Your task to perform on an android device: change the clock display to show seconds Image 0: 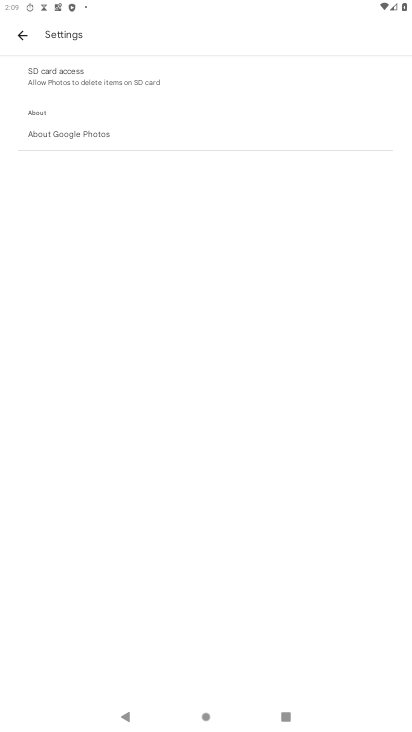
Step 0: press home button
Your task to perform on an android device: change the clock display to show seconds Image 1: 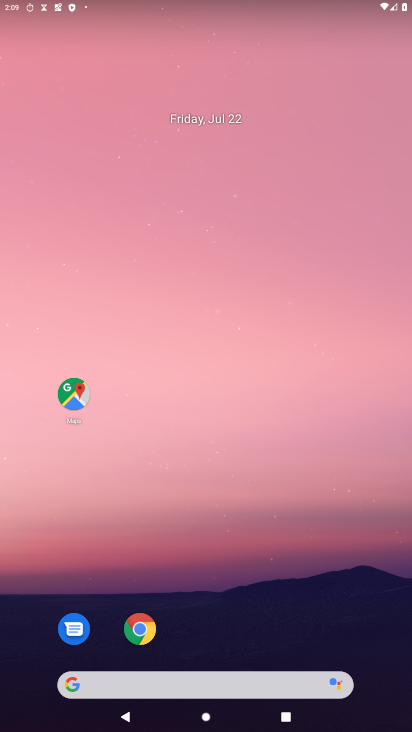
Step 1: press home button
Your task to perform on an android device: change the clock display to show seconds Image 2: 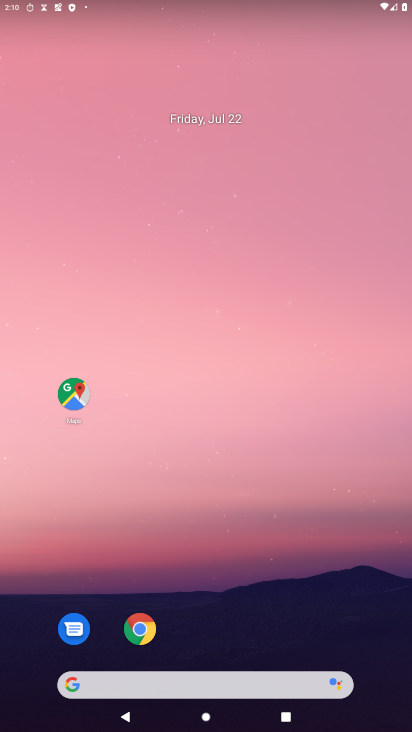
Step 2: drag from (264, 645) to (275, 0)
Your task to perform on an android device: change the clock display to show seconds Image 3: 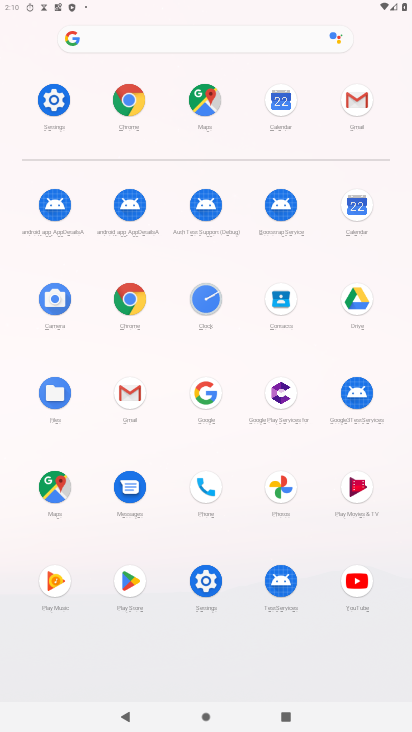
Step 3: click (202, 294)
Your task to perform on an android device: change the clock display to show seconds Image 4: 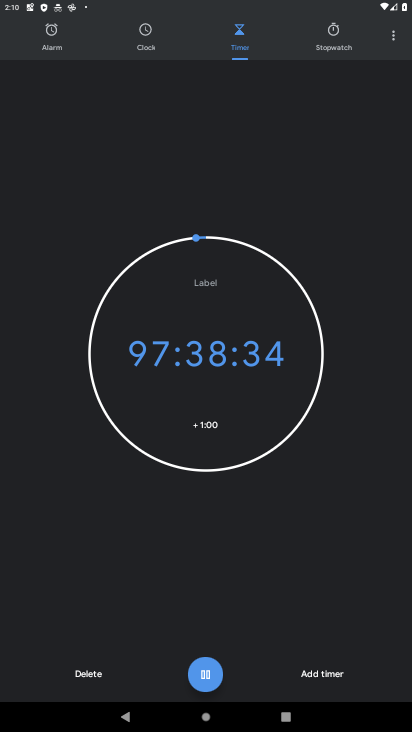
Step 4: click (401, 44)
Your task to perform on an android device: change the clock display to show seconds Image 5: 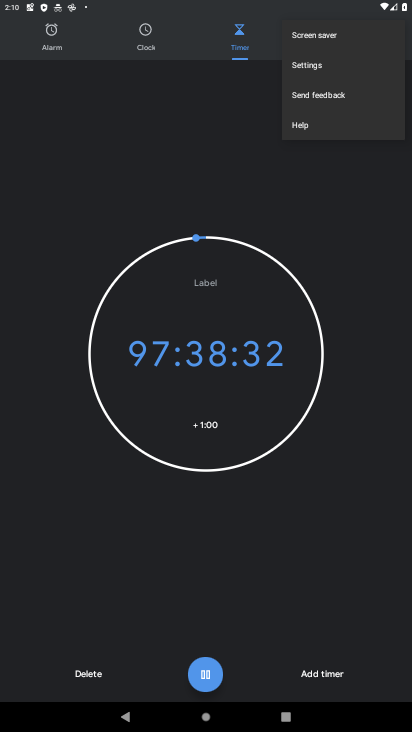
Step 5: click (325, 62)
Your task to perform on an android device: change the clock display to show seconds Image 6: 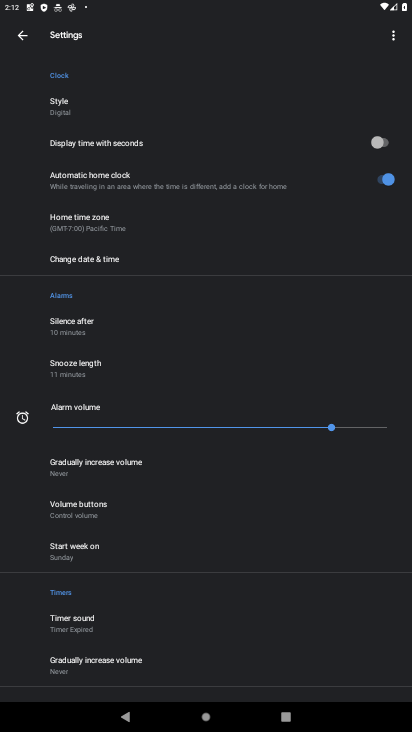
Step 6: task complete